Your task to perform on an android device: toggle airplane mode Image 0: 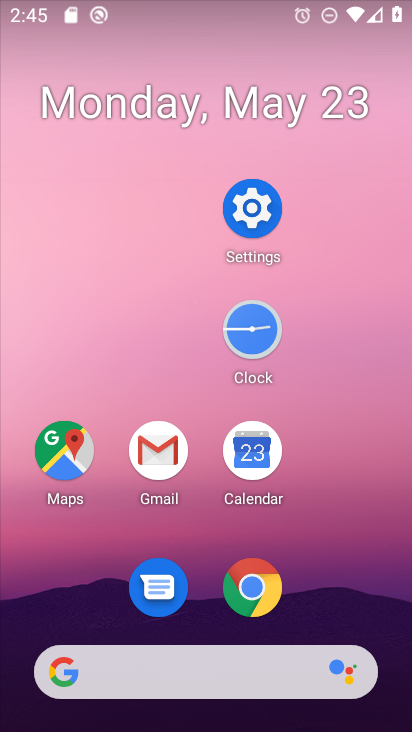
Step 0: click (257, 229)
Your task to perform on an android device: toggle airplane mode Image 1: 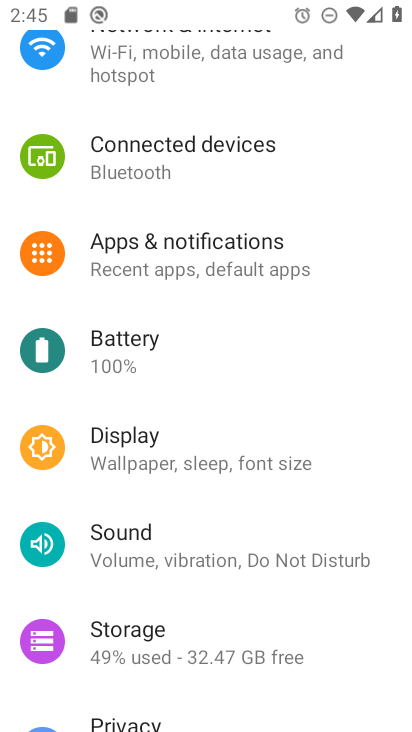
Step 1: click (276, 78)
Your task to perform on an android device: toggle airplane mode Image 2: 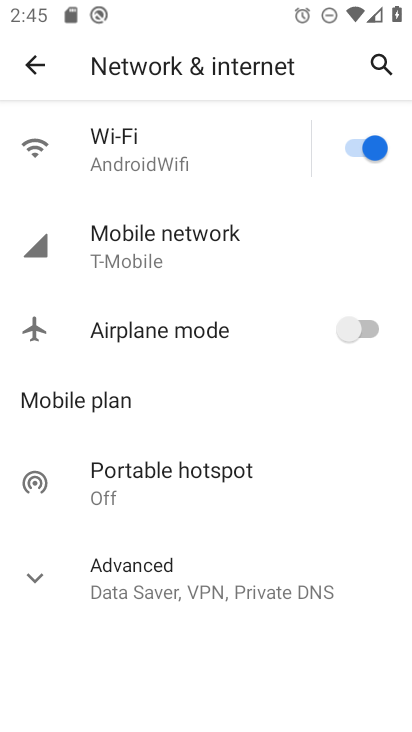
Step 2: click (353, 353)
Your task to perform on an android device: toggle airplane mode Image 3: 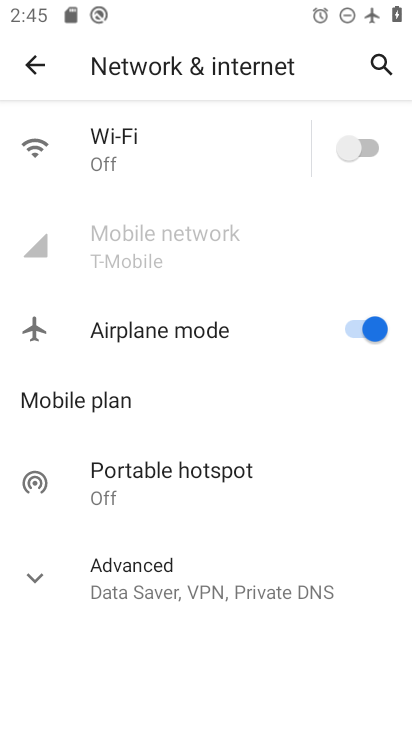
Step 3: task complete